Your task to perform on an android device: open sync settings in chrome Image 0: 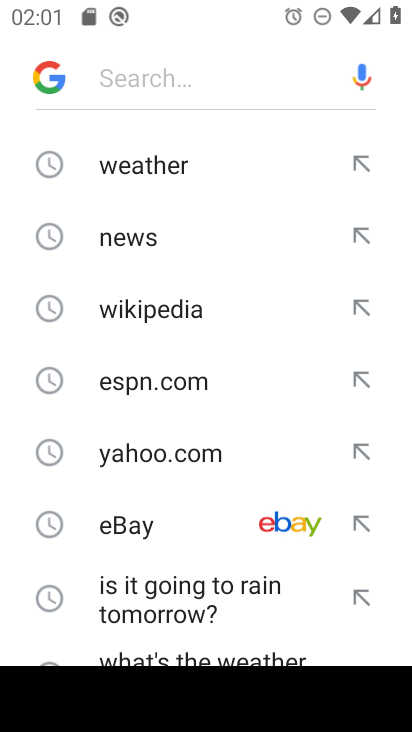
Step 0: press home button
Your task to perform on an android device: open sync settings in chrome Image 1: 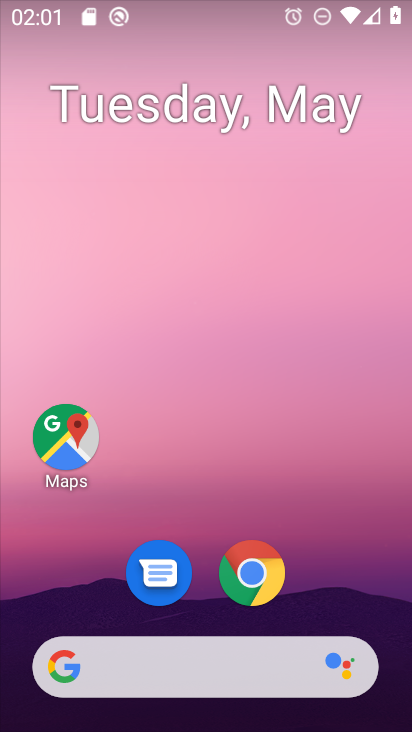
Step 1: drag from (128, 718) to (308, 69)
Your task to perform on an android device: open sync settings in chrome Image 2: 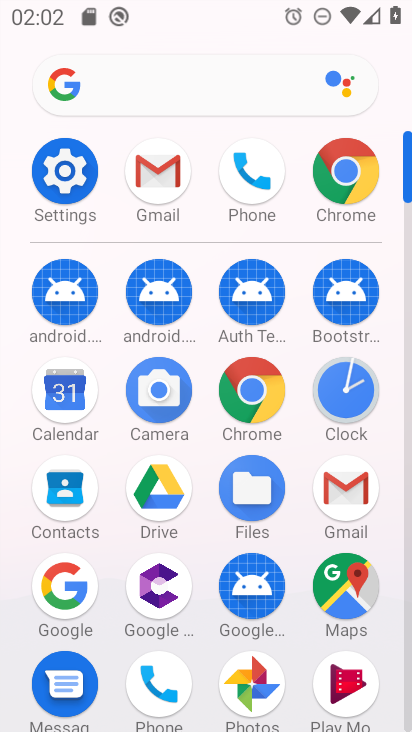
Step 2: click (331, 167)
Your task to perform on an android device: open sync settings in chrome Image 3: 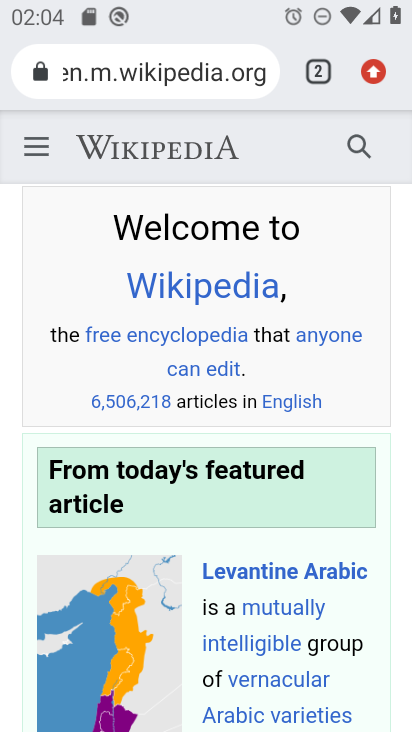
Step 3: click (380, 66)
Your task to perform on an android device: open sync settings in chrome Image 4: 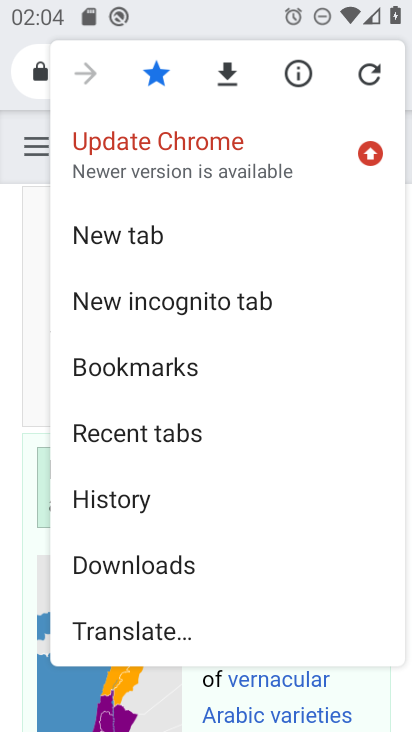
Step 4: drag from (236, 563) to (241, 164)
Your task to perform on an android device: open sync settings in chrome Image 5: 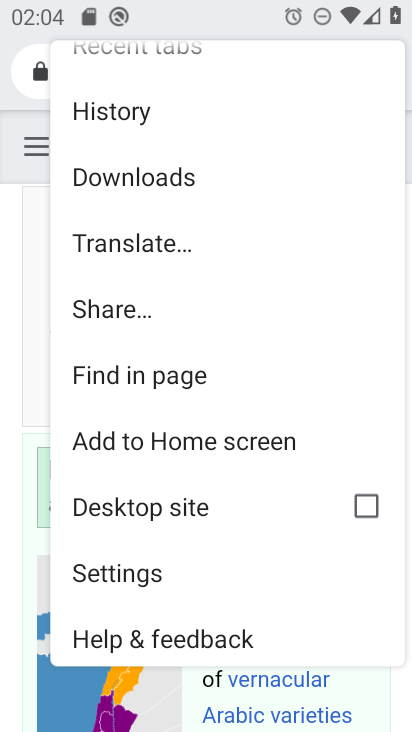
Step 5: click (153, 567)
Your task to perform on an android device: open sync settings in chrome Image 6: 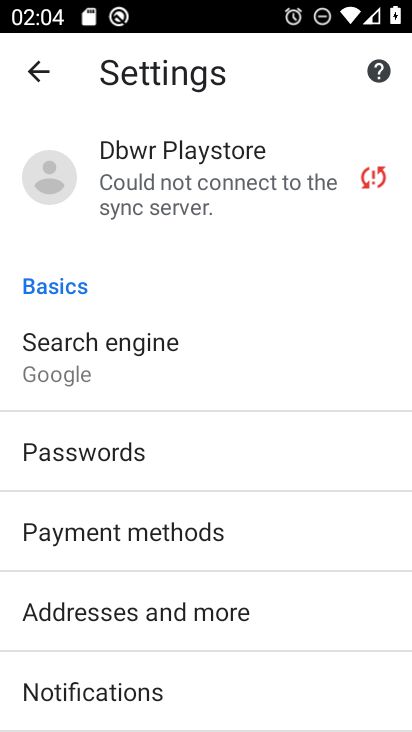
Step 6: click (225, 192)
Your task to perform on an android device: open sync settings in chrome Image 7: 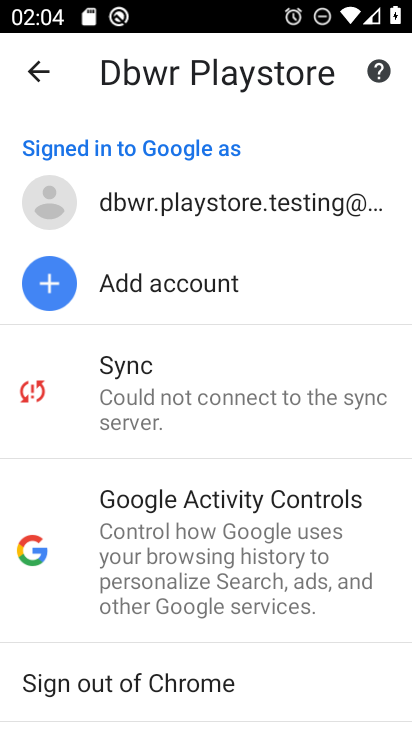
Step 7: task complete